Your task to perform on an android device: Go to CNN.com Image 0: 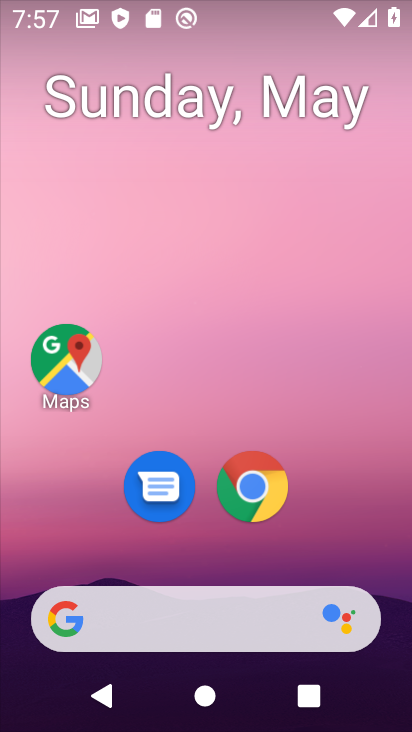
Step 0: click (238, 483)
Your task to perform on an android device: Go to CNN.com Image 1: 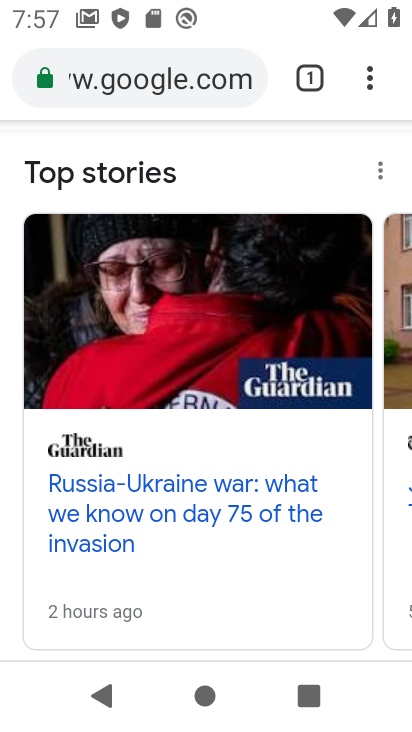
Step 1: click (149, 72)
Your task to perform on an android device: Go to CNN.com Image 2: 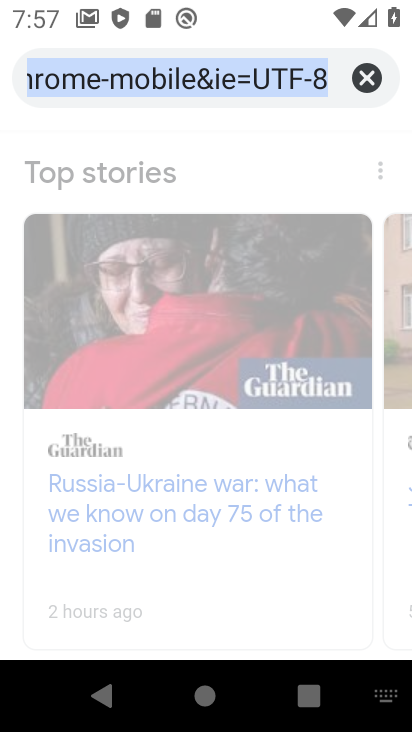
Step 2: type "CNN.com"
Your task to perform on an android device: Go to CNN.com Image 3: 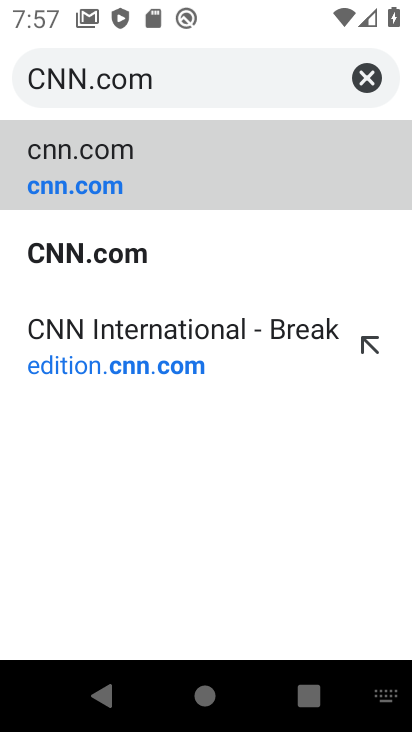
Step 3: click (128, 161)
Your task to perform on an android device: Go to CNN.com Image 4: 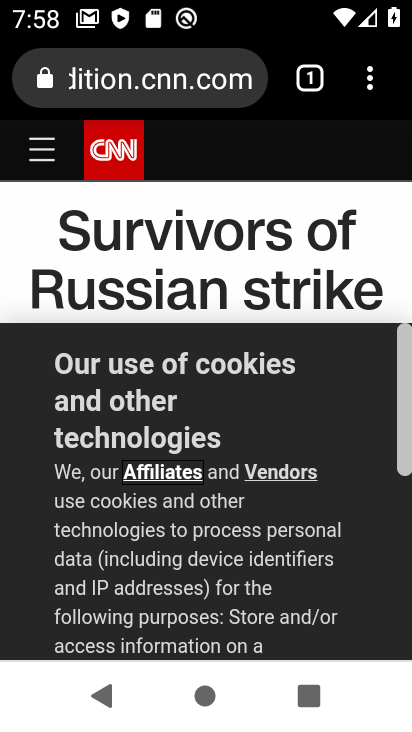
Step 4: task complete